Your task to perform on an android device: Search for vegetarian restaurants on Maps Image 0: 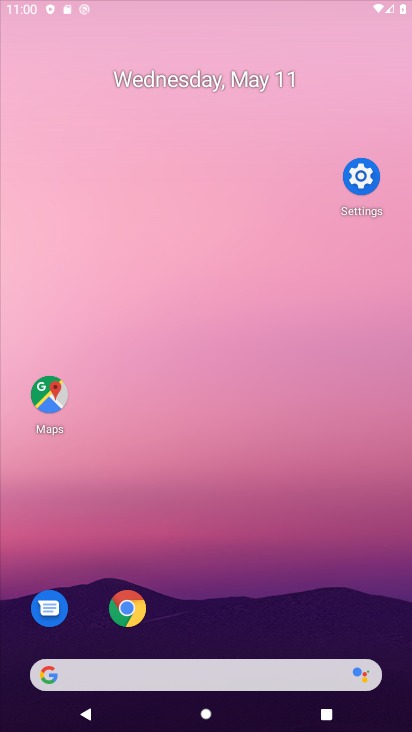
Step 0: drag from (339, 638) to (119, 151)
Your task to perform on an android device: Search for vegetarian restaurants on Maps Image 1: 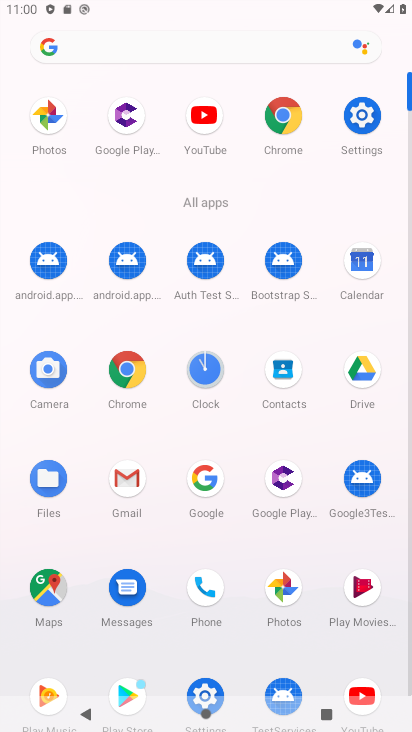
Step 1: click (37, 590)
Your task to perform on an android device: Search for vegetarian restaurants on Maps Image 2: 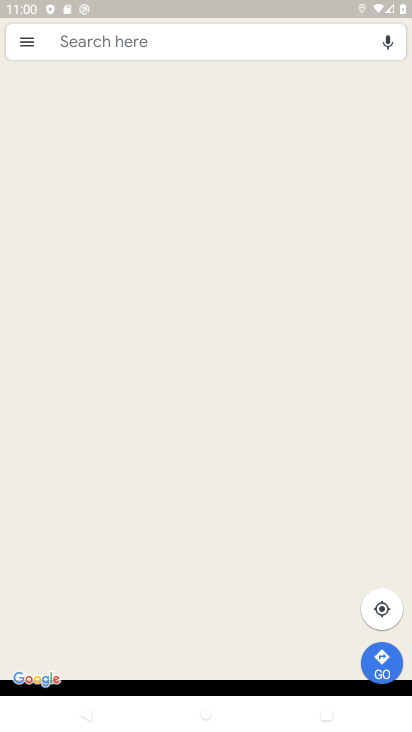
Step 2: click (77, 33)
Your task to perform on an android device: Search for vegetarian restaurants on Maps Image 3: 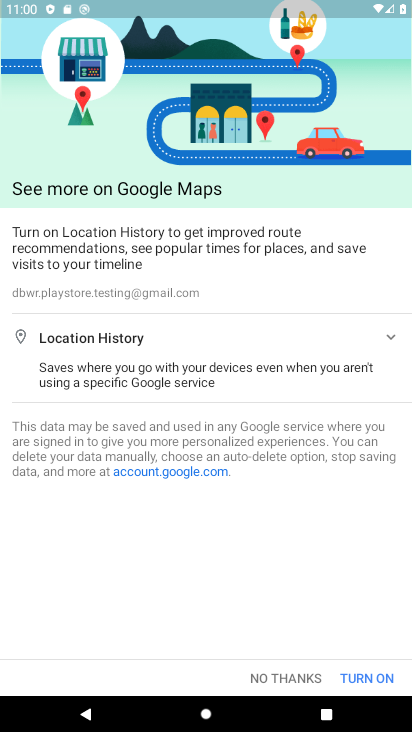
Step 3: type "vegerati"
Your task to perform on an android device: Search for vegetarian restaurants on Maps Image 4: 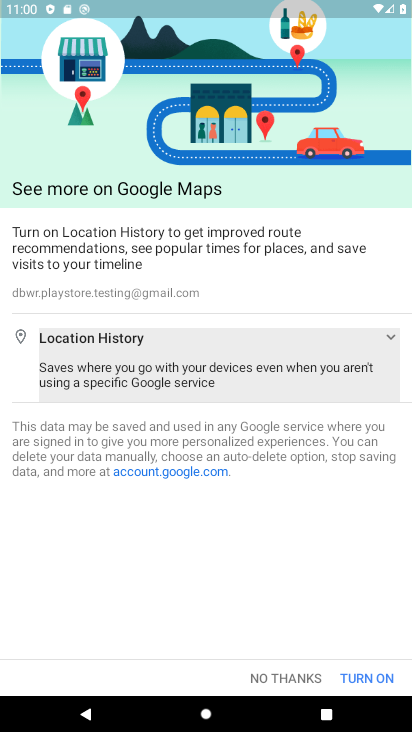
Step 4: press back button
Your task to perform on an android device: Search for vegetarian restaurants on Maps Image 5: 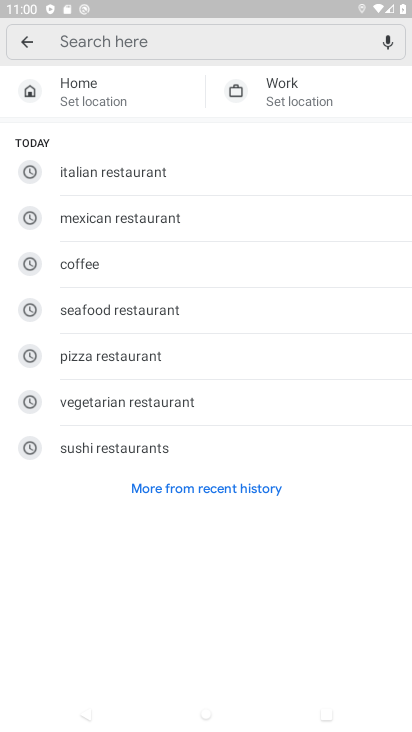
Step 5: click (143, 404)
Your task to perform on an android device: Search for vegetarian restaurants on Maps Image 6: 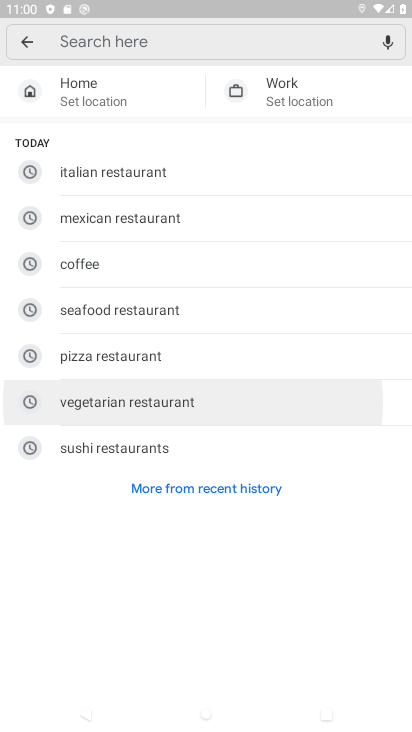
Step 6: click (143, 404)
Your task to perform on an android device: Search for vegetarian restaurants on Maps Image 7: 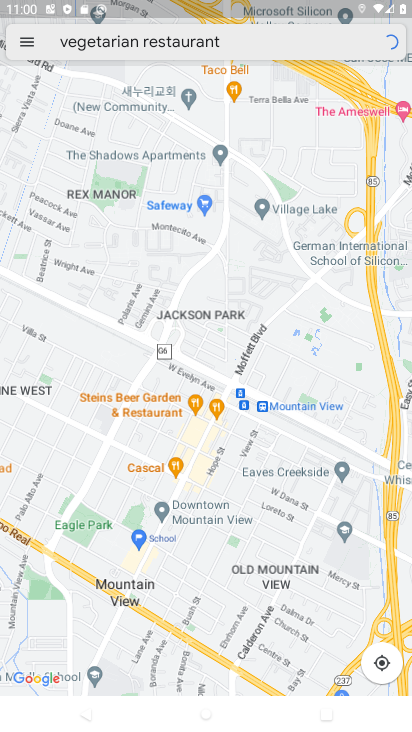
Step 7: task complete